Your task to perform on an android device: change the clock display to digital Image 0: 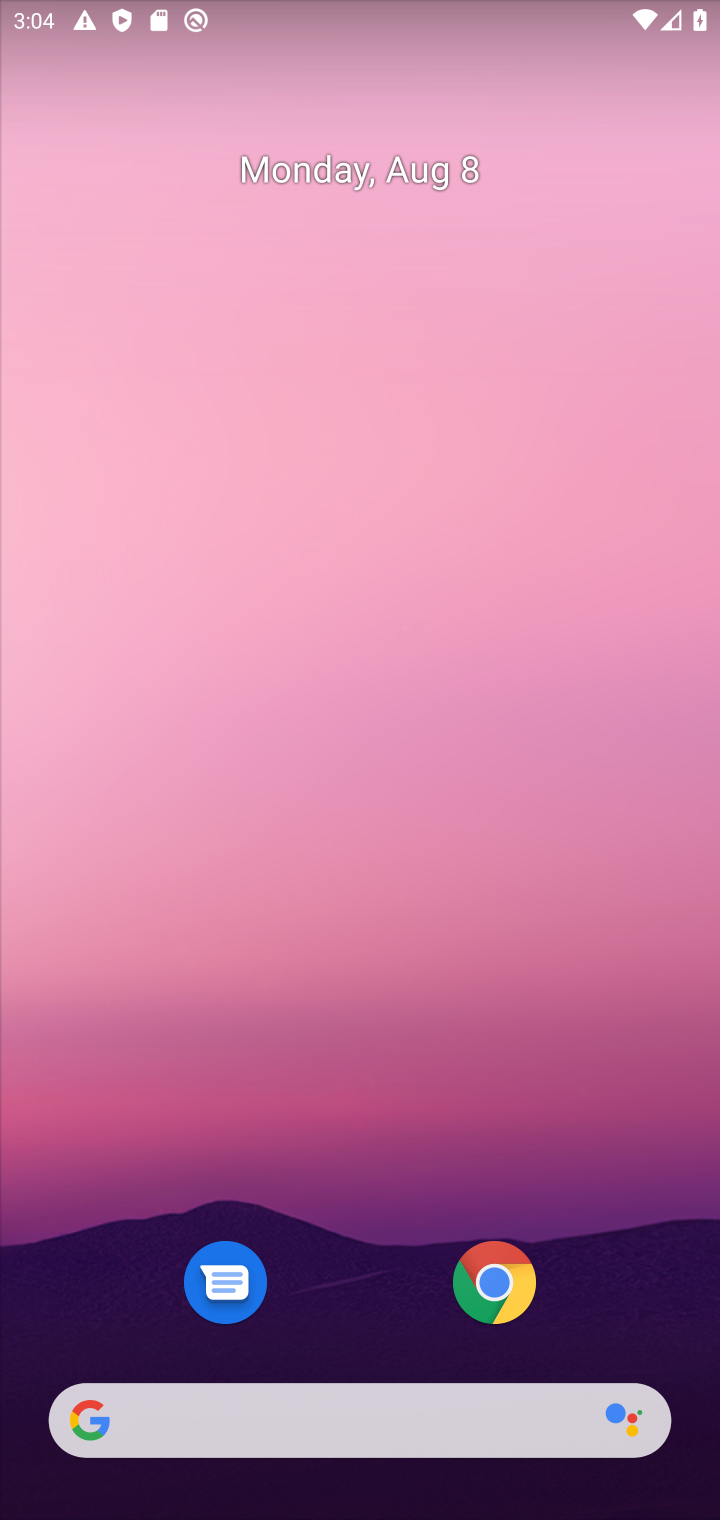
Step 0: drag from (302, 1141) to (416, 104)
Your task to perform on an android device: change the clock display to digital Image 1: 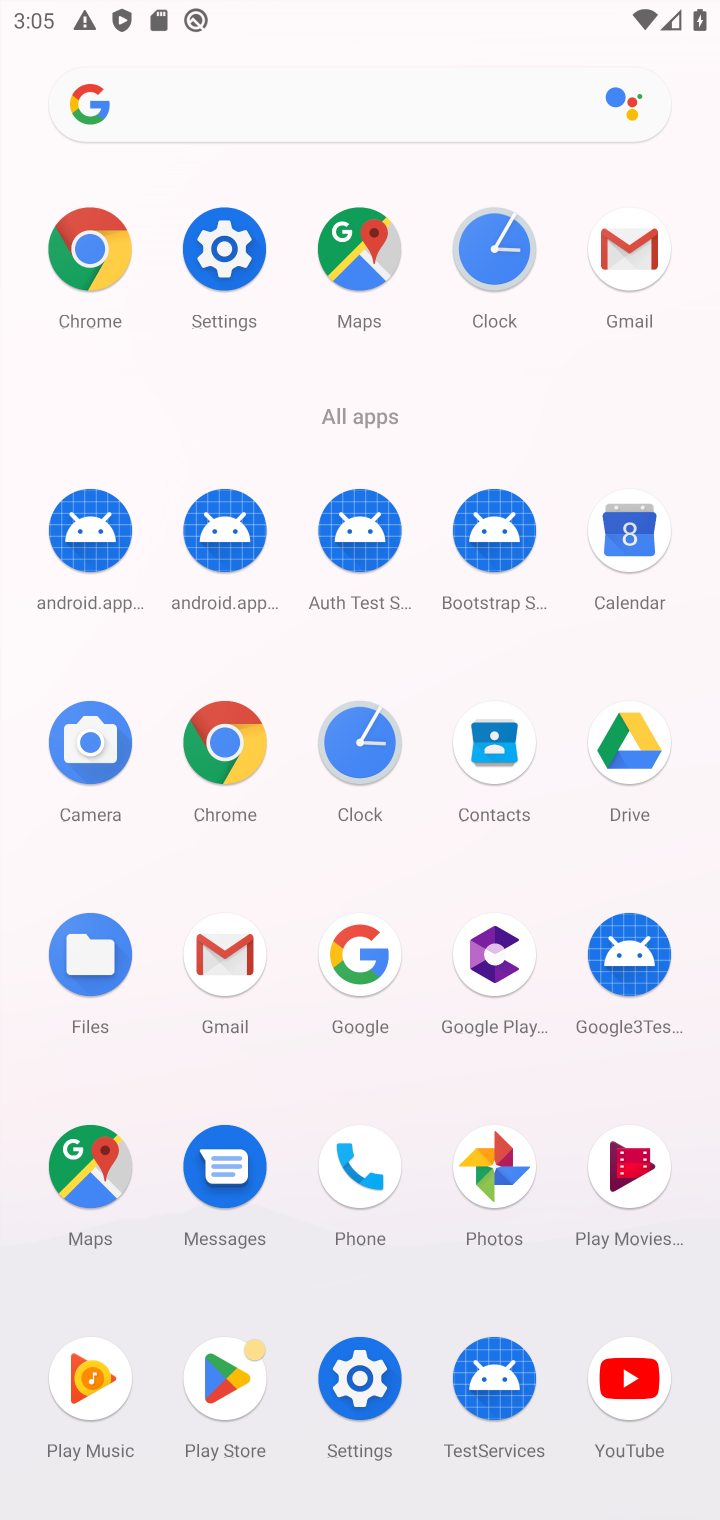
Step 1: click (341, 743)
Your task to perform on an android device: change the clock display to digital Image 2: 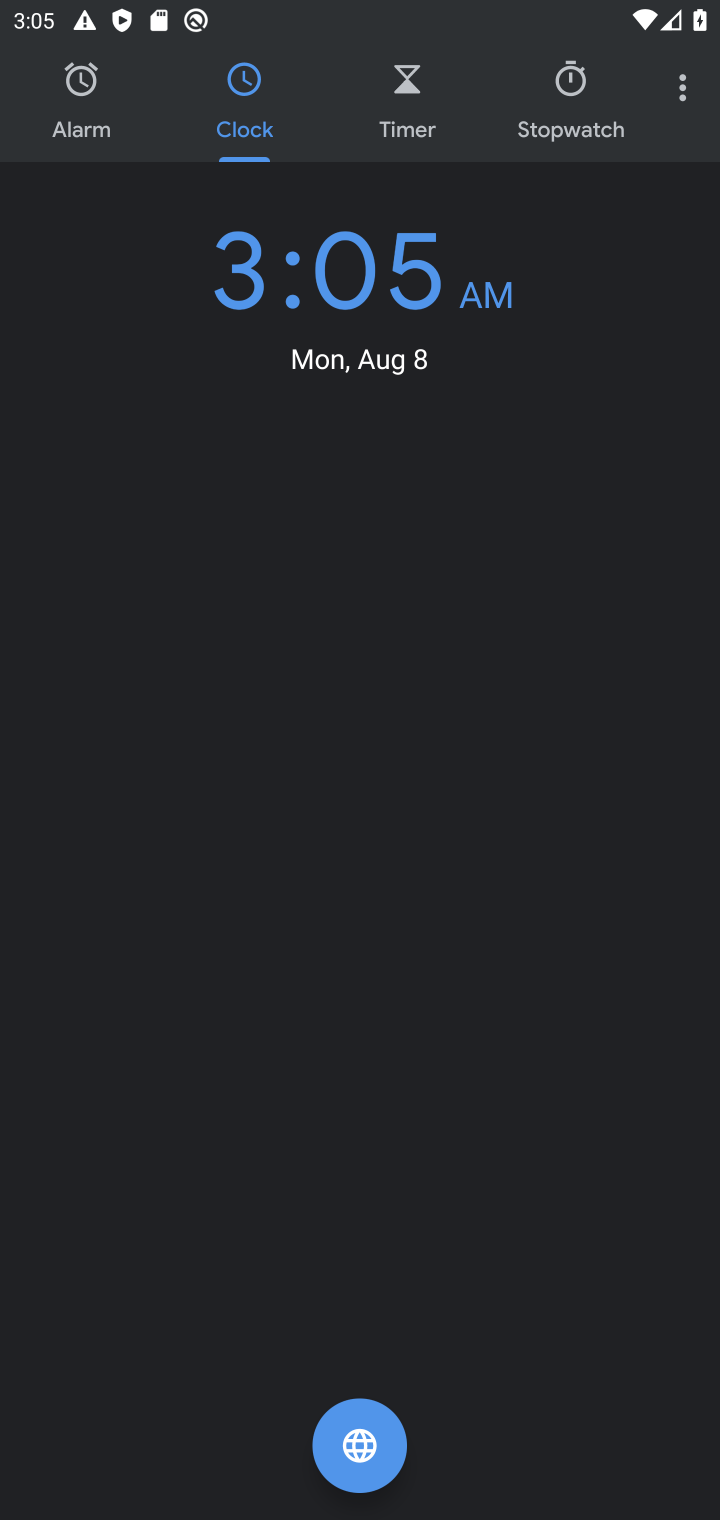
Step 2: click (679, 95)
Your task to perform on an android device: change the clock display to digital Image 3: 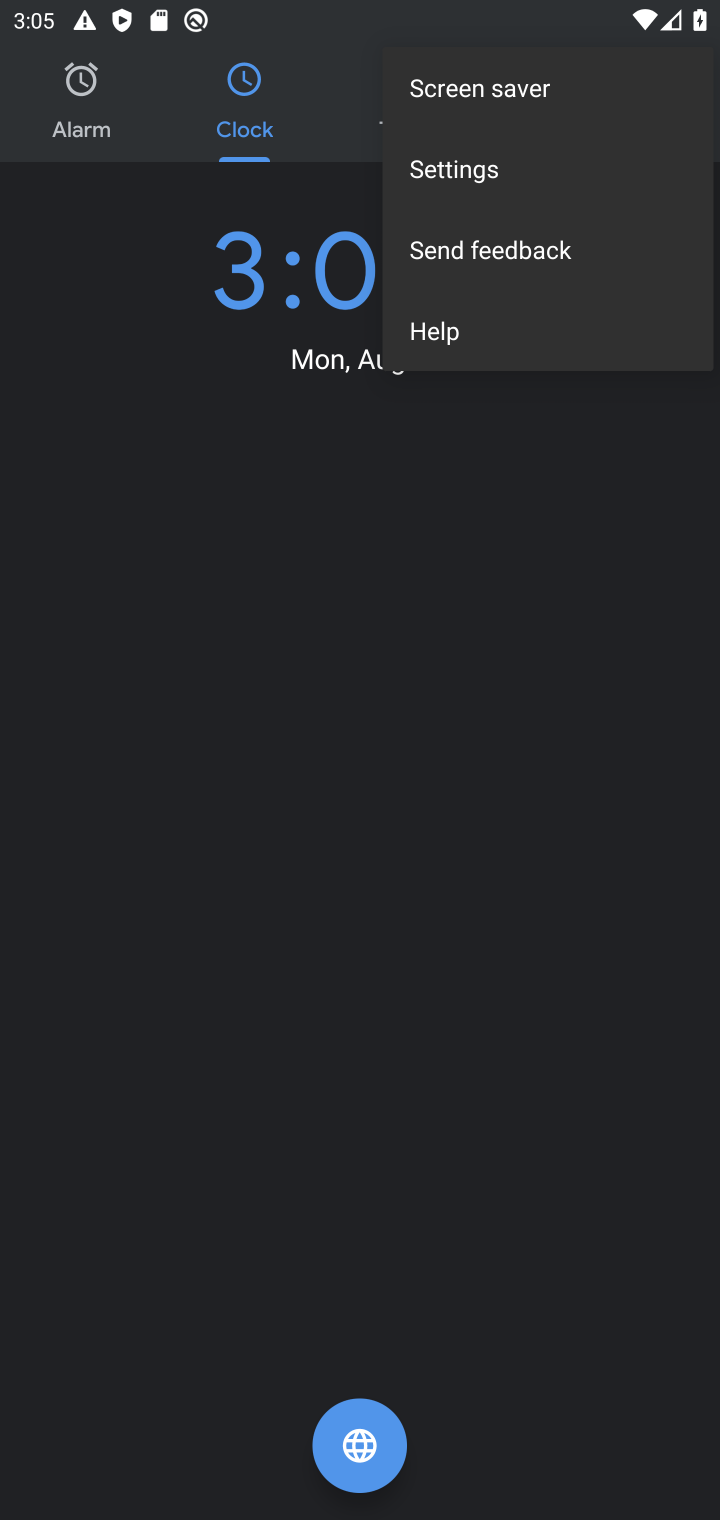
Step 3: click (523, 179)
Your task to perform on an android device: change the clock display to digital Image 4: 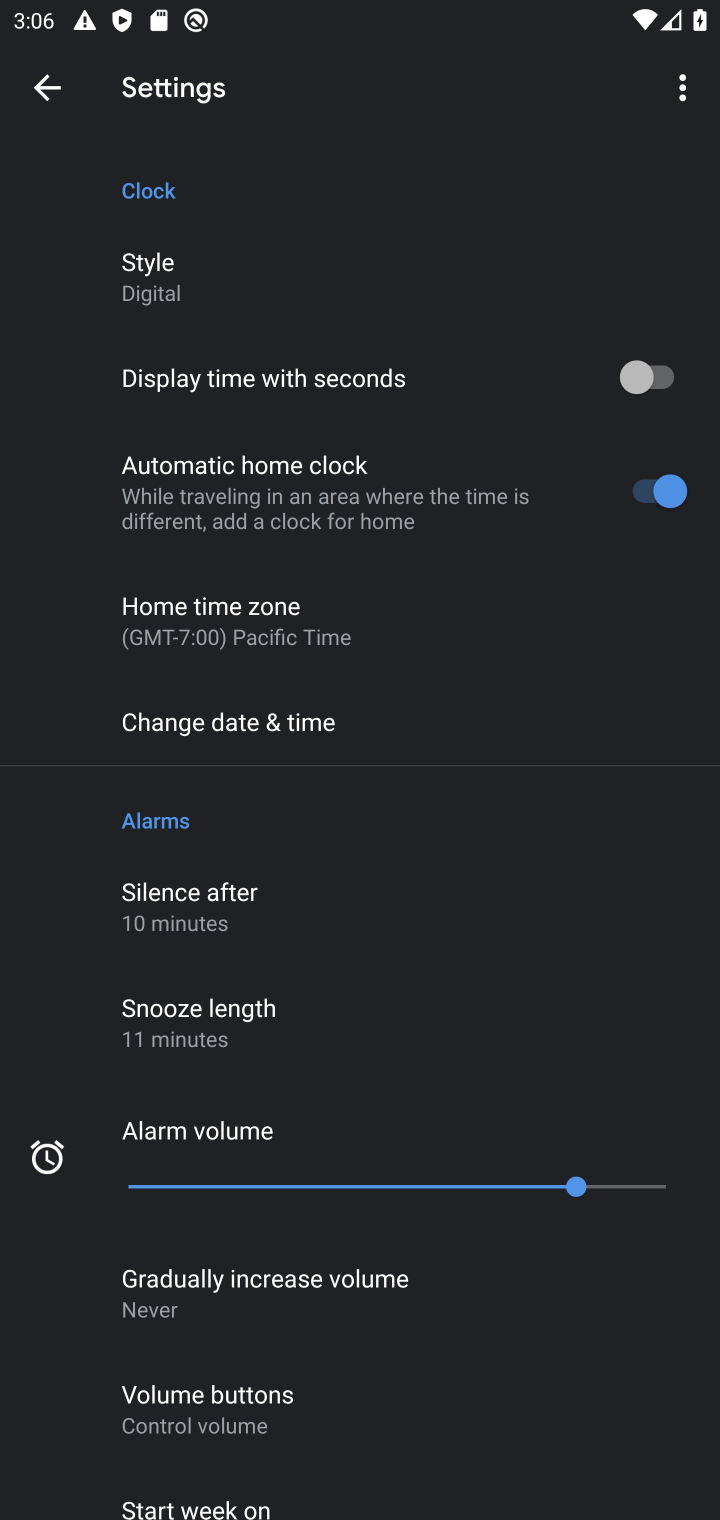
Step 4: click (182, 274)
Your task to perform on an android device: change the clock display to digital Image 5: 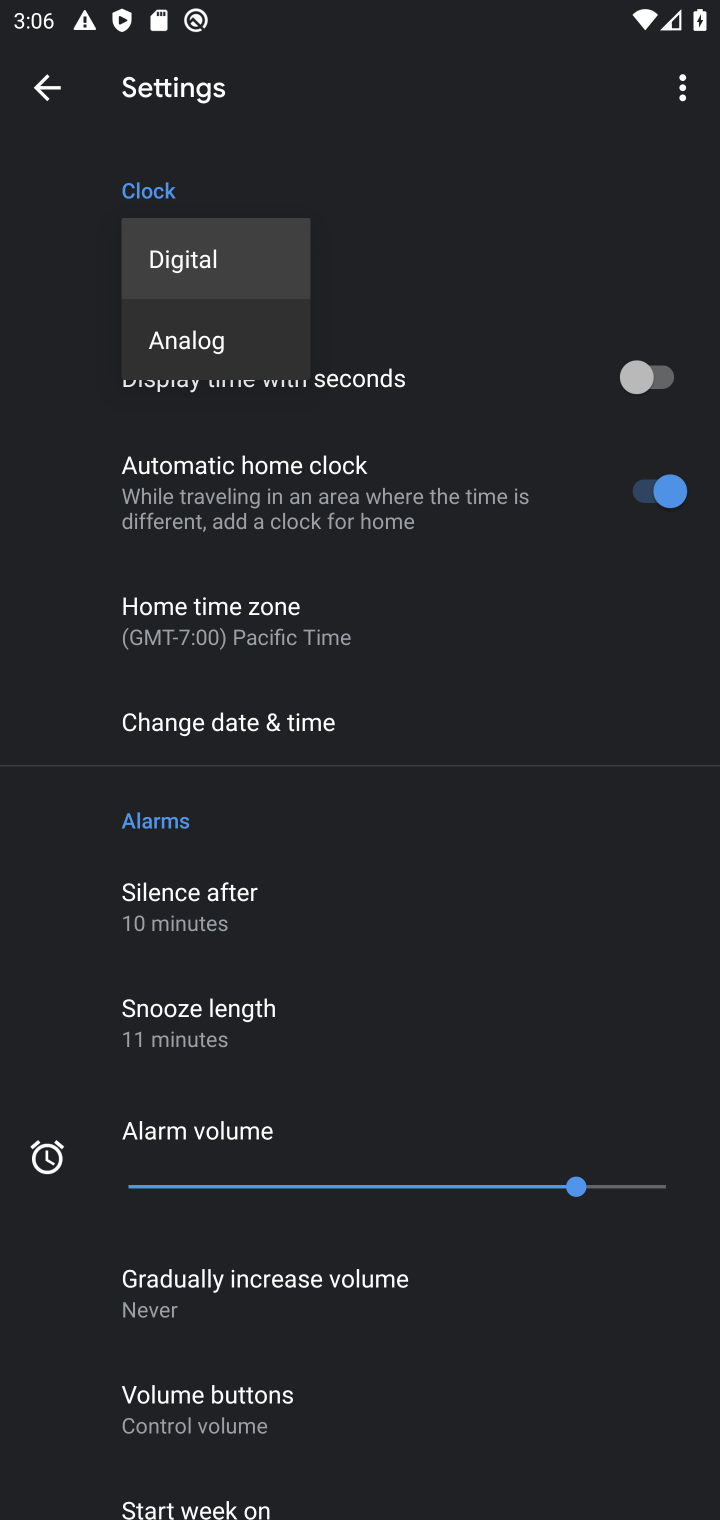
Step 5: task complete